Your task to perform on an android device: turn on the 12-hour format for clock Image 0: 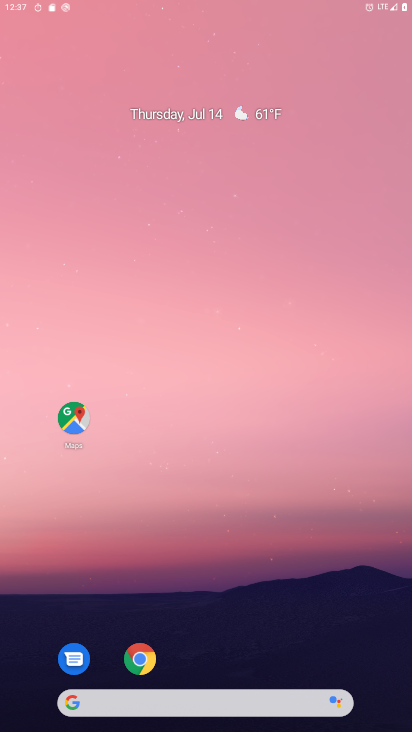
Step 0: press home button
Your task to perform on an android device: turn on the 12-hour format for clock Image 1: 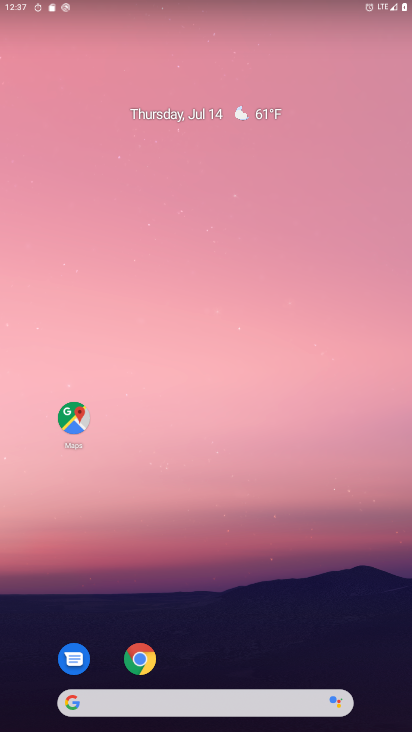
Step 1: drag from (214, 663) to (253, 59)
Your task to perform on an android device: turn on the 12-hour format for clock Image 2: 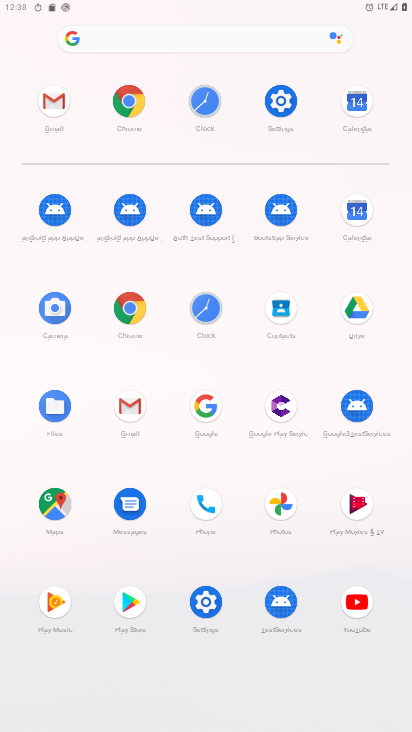
Step 2: click (204, 306)
Your task to perform on an android device: turn on the 12-hour format for clock Image 3: 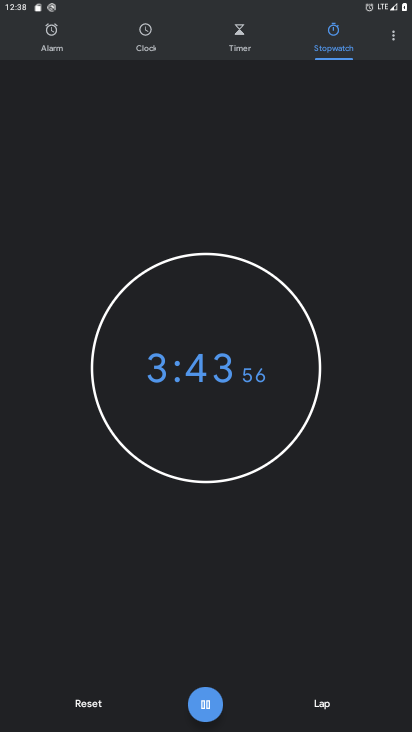
Step 3: click (84, 695)
Your task to perform on an android device: turn on the 12-hour format for clock Image 4: 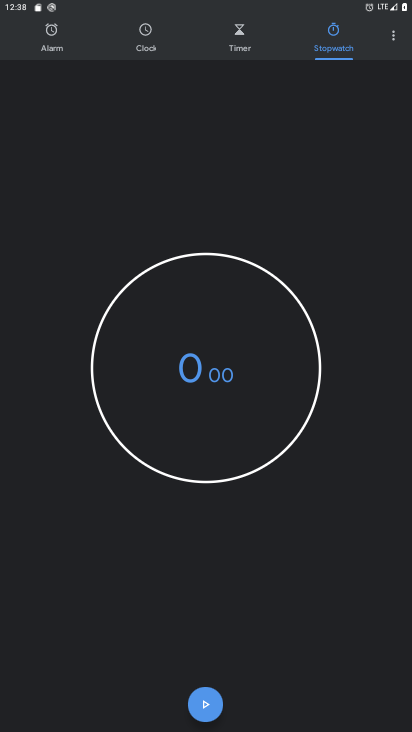
Step 4: click (393, 41)
Your task to perform on an android device: turn on the 12-hour format for clock Image 5: 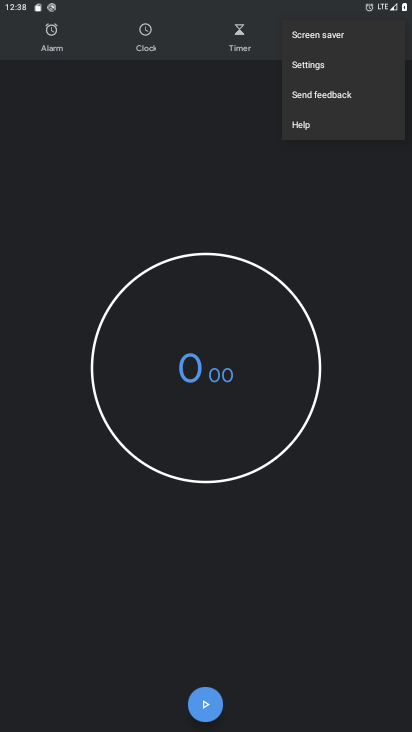
Step 5: click (325, 67)
Your task to perform on an android device: turn on the 12-hour format for clock Image 6: 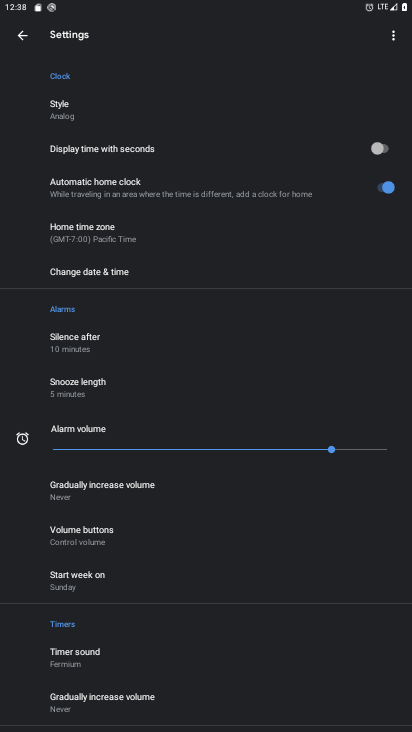
Step 6: click (113, 279)
Your task to perform on an android device: turn on the 12-hour format for clock Image 7: 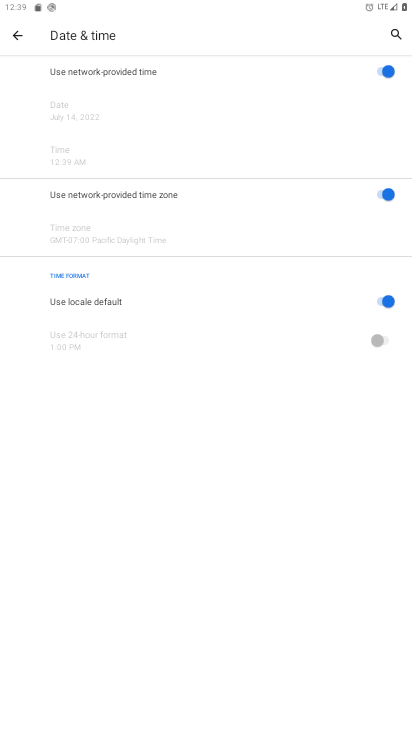
Step 7: task complete